Your task to perform on an android device: turn on location history Image 0: 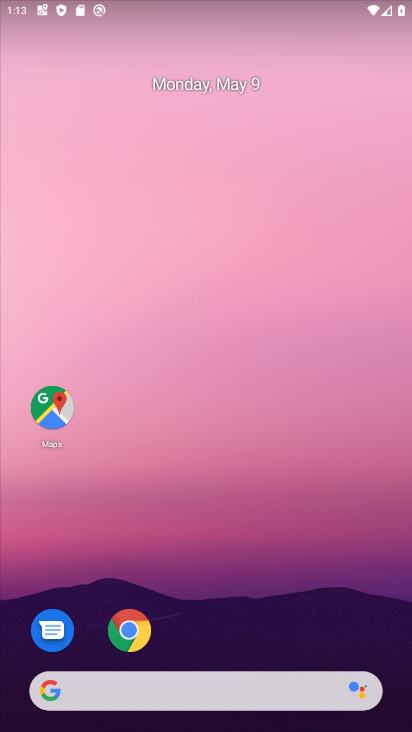
Step 0: drag from (317, 723) to (345, 370)
Your task to perform on an android device: turn on location history Image 1: 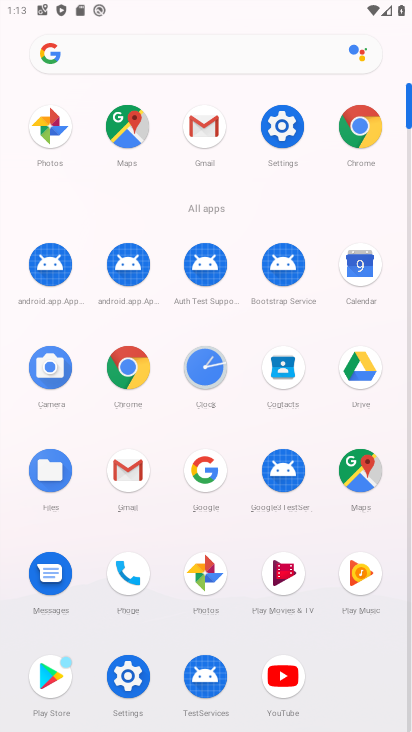
Step 1: click (295, 135)
Your task to perform on an android device: turn on location history Image 2: 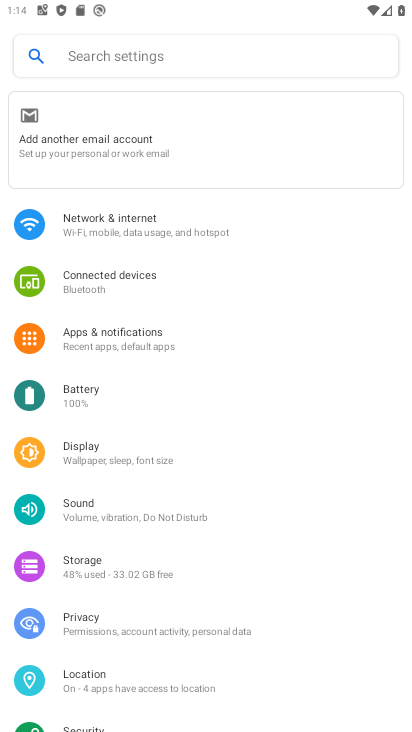
Step 2: click (99, 673)
Your task to perform on an android device: turn on location history Image 3: 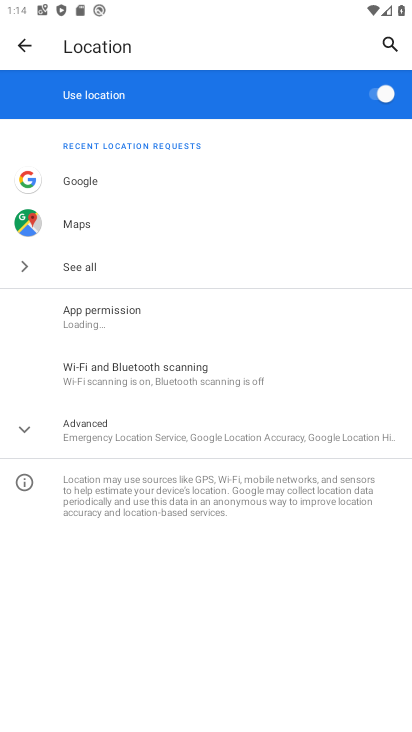
Step 3: click (77, 446)
Your task to perform on an android device: turn on location history Image 4: 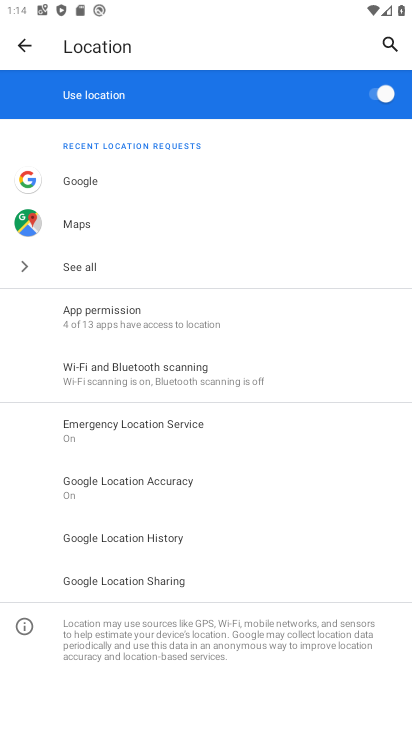
Step 4: click (141, 543)
Your task to perform on an android device: turn on location history Image 5: 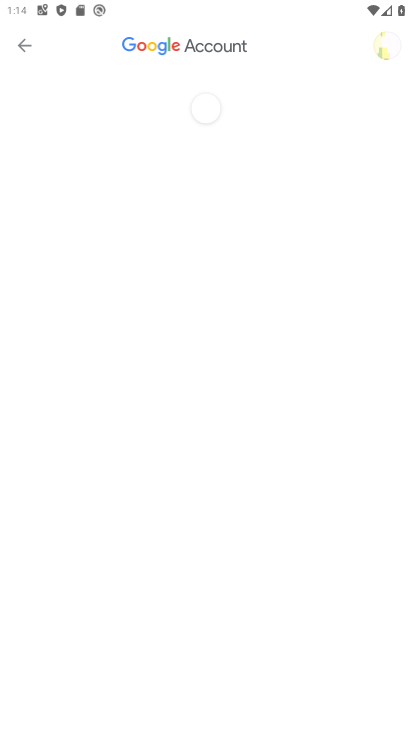
Step 5: task complete